Your task to perform on an android device: open app "Instagram" (install if not already installed) and go to login screen Image 0: 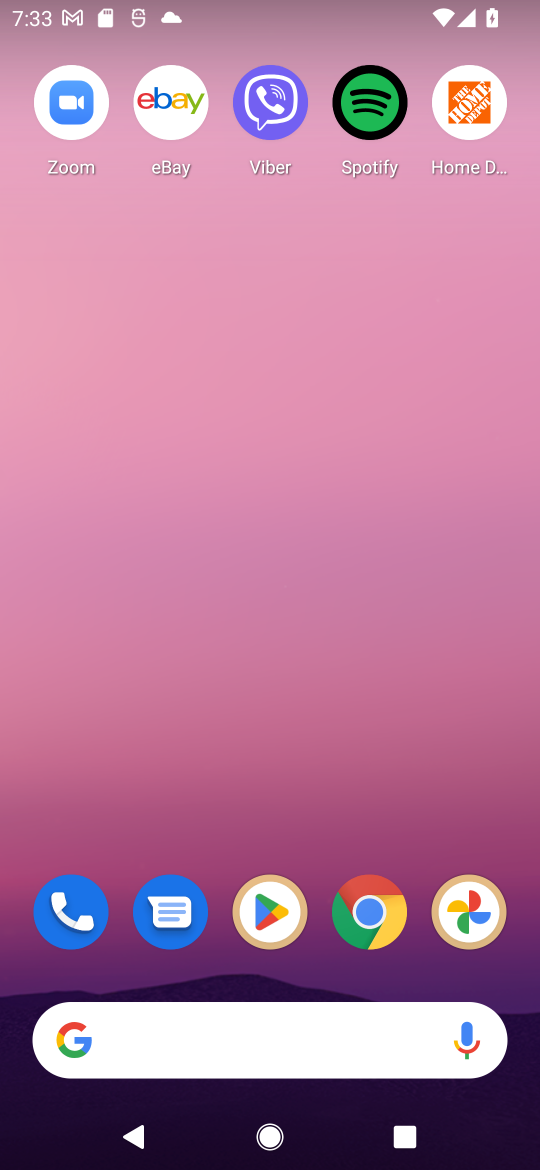
Step 0: click (279, 913)
Your task to perform on an android device: open app "Instagram" (install if not already installed) and go to login screen Image 1: 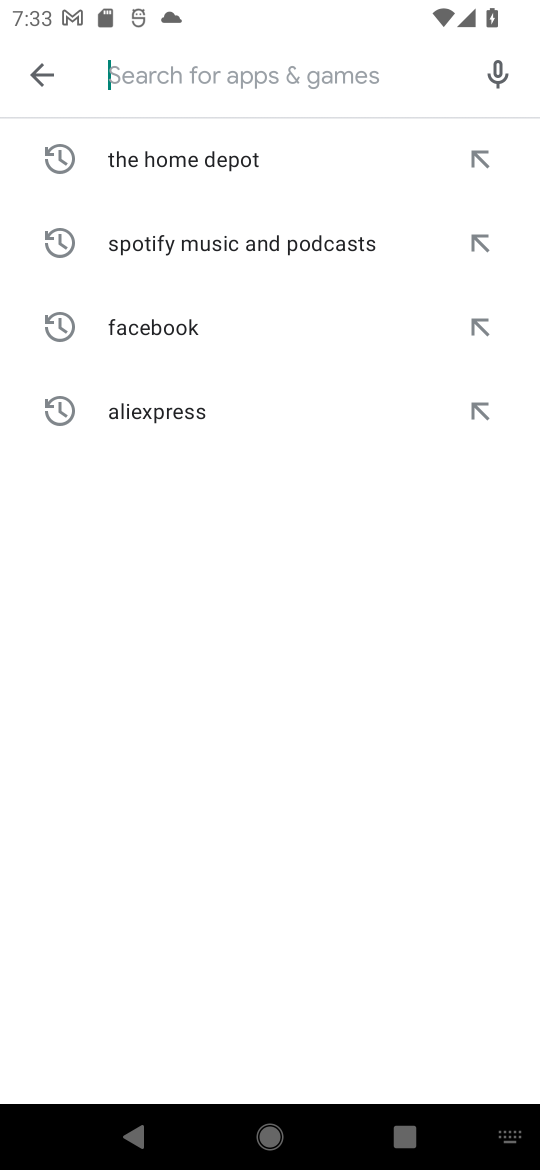
Step 1: type "Instagram"
Your task to perform on an android device: open app "Instagram" (install if not already installed) and go to login screen Image 2: 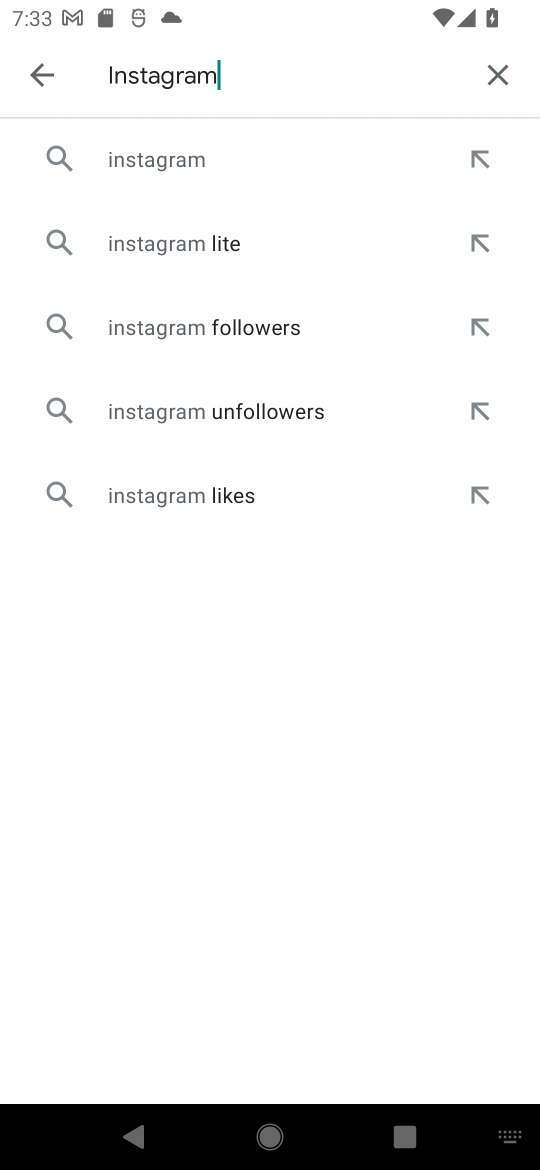
Step 2: click (163, 152)
Your task to perform on an android device: open app "Instagram" (install if not already installed) and go to login screen Image 3: 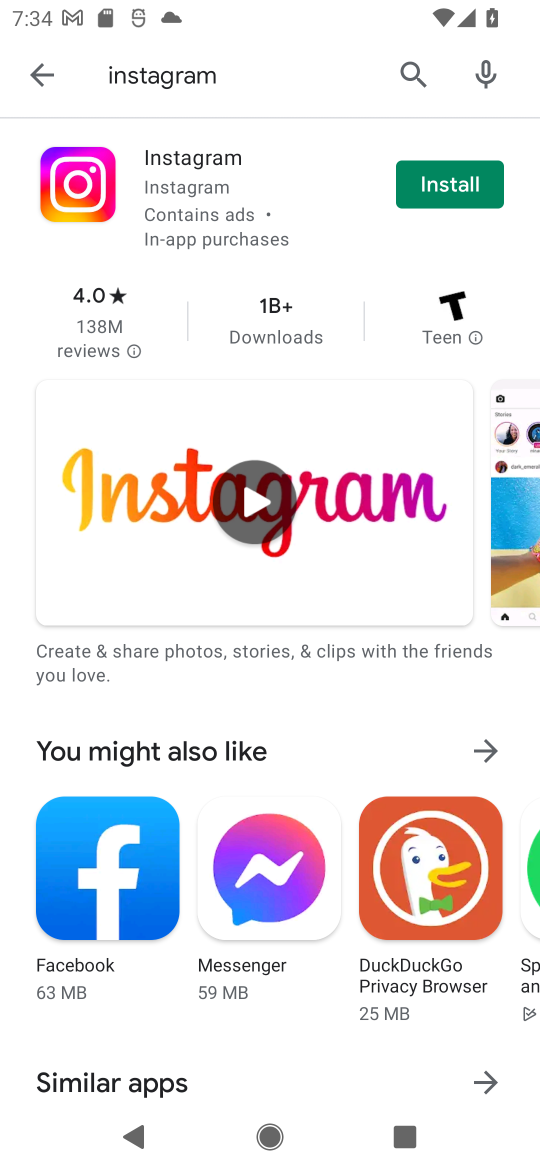
Step 3: click (481, 179)
Your task to perform on an android device: open app "Instagram" (install if not already installed) and go to login screen Image 4: 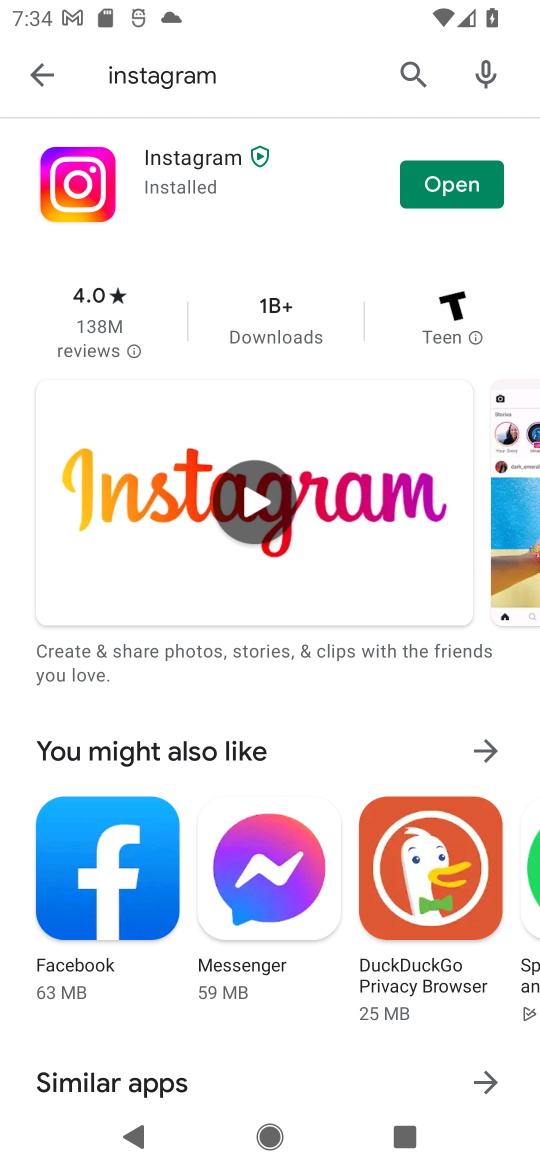
Step 4: click (476, 180)
Your task to perform on an android device: open app "Instagram" (install if not already installed) and go to login screen Image 5: 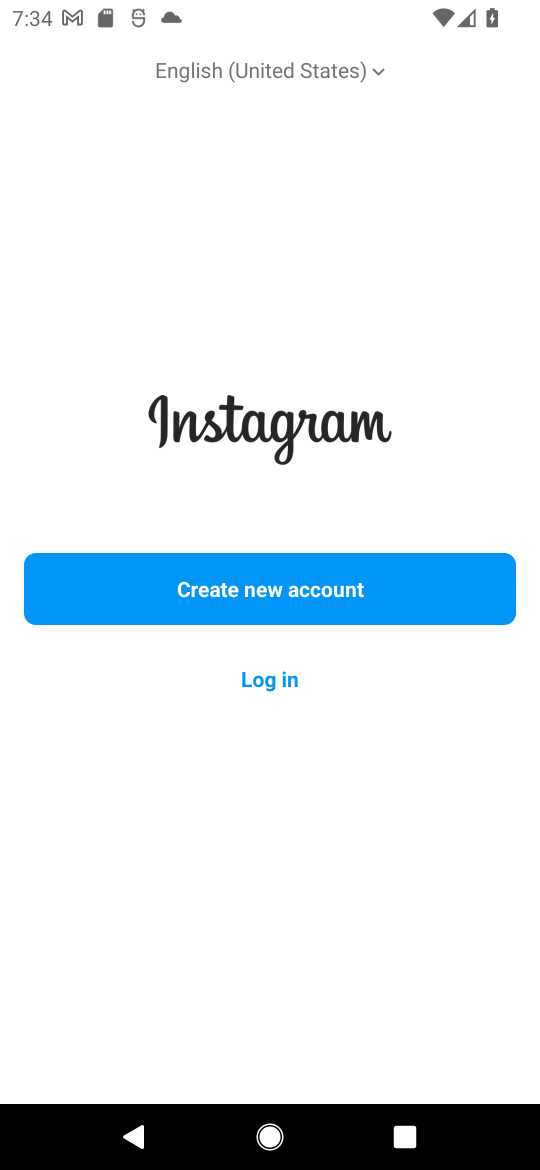
Step 5: click (280, 680)
Your task to perform on an android device: open app "Instagram" (install if not already installed) and go to login screen Image 6: 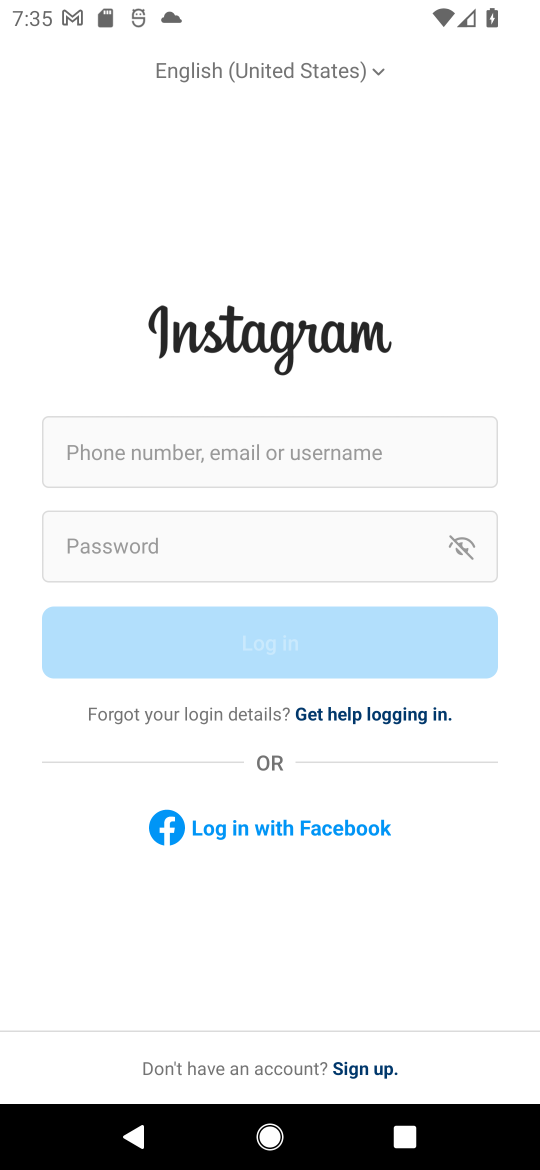
Step 6: task complete